Your task to perform on an android device: Open internet settings Image 0: 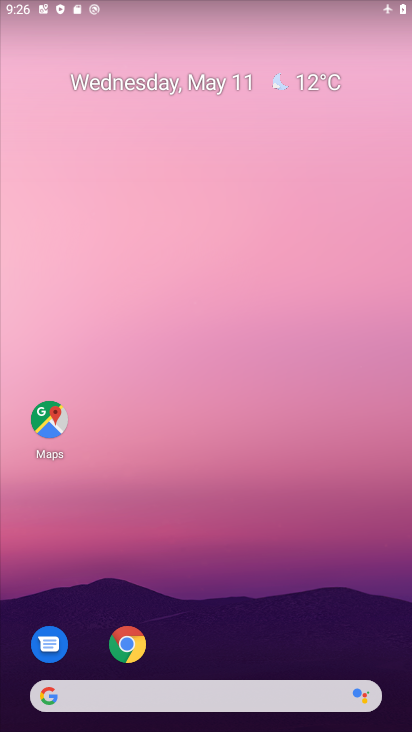
Step 0: drag from (210, 665) to (76, 413)
Your task to perform on an android device: Open internet settings Image 1: 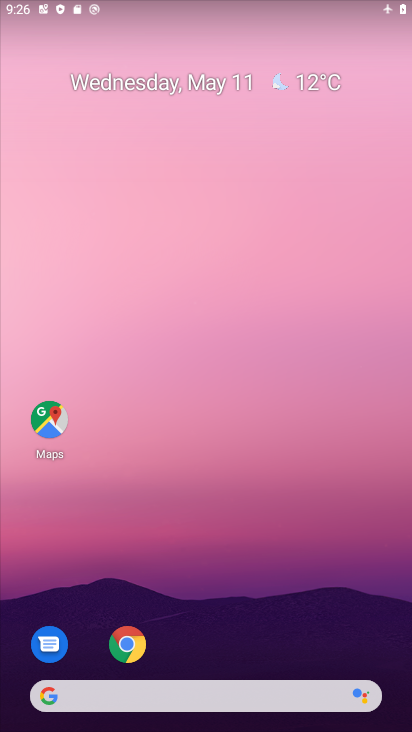
Step 1: drag from (225, 646) to (253, 70)
Your task to perform on an android device: Open internet settings Image 2: 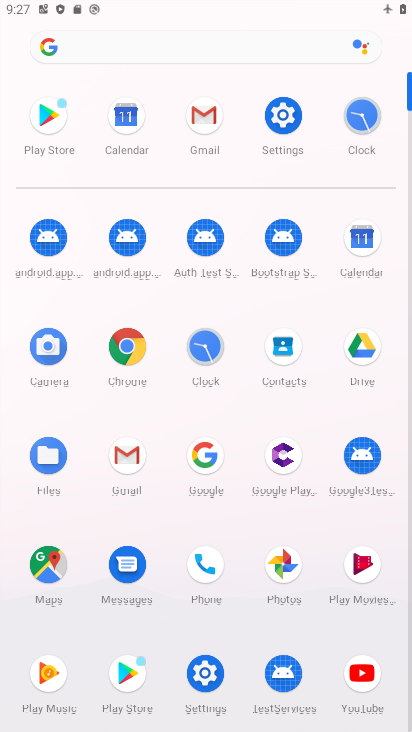
Step 2: click (286, 113)
Your task to perform on an android device: Open internet settings Image 3: 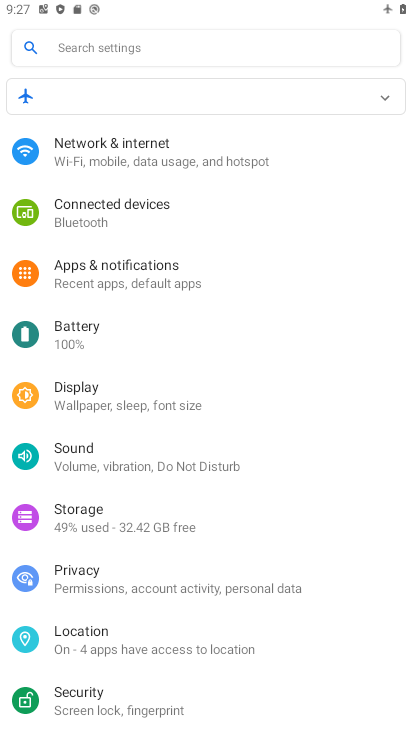
Step 3: click (246, 162)
Your task to perform on an android device: Open internet settings Image 4: 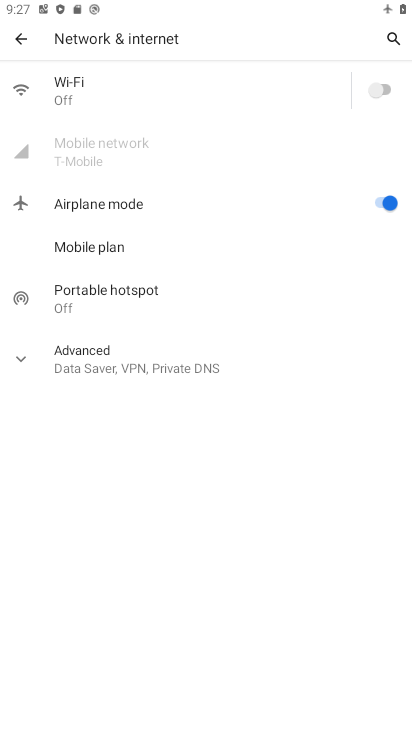
Step 4: task complete